Your task to perform on an android device: turn on sleep mode Image 0: 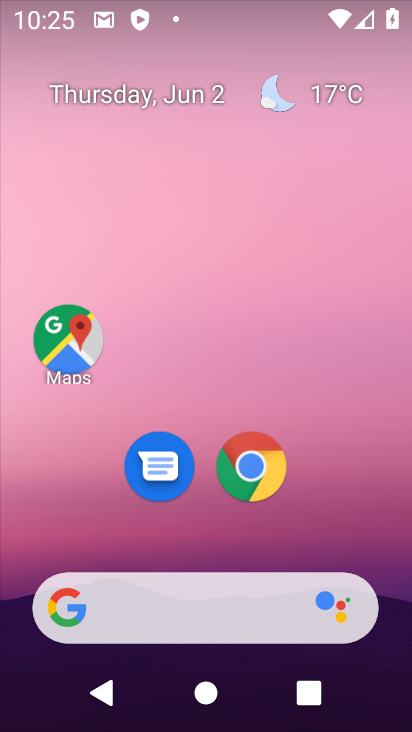
Step 0: press home button
Your task to perform on an android device: turn on sleep mode Image 1: 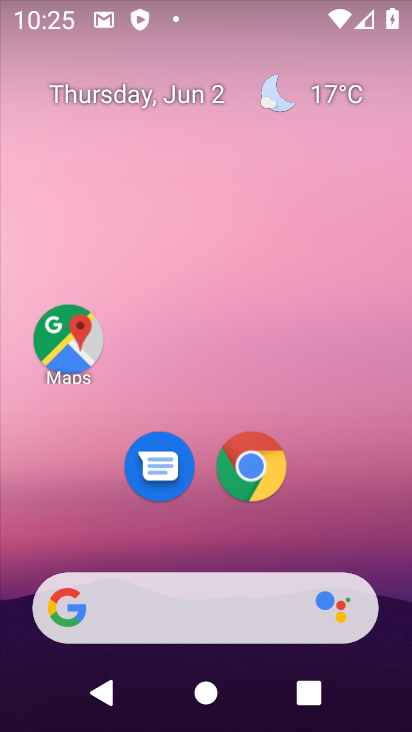
Step 1: drag from (204, 461) to (102, 78)
Your task to perform on an android device: turn on sleep mode Image 2: 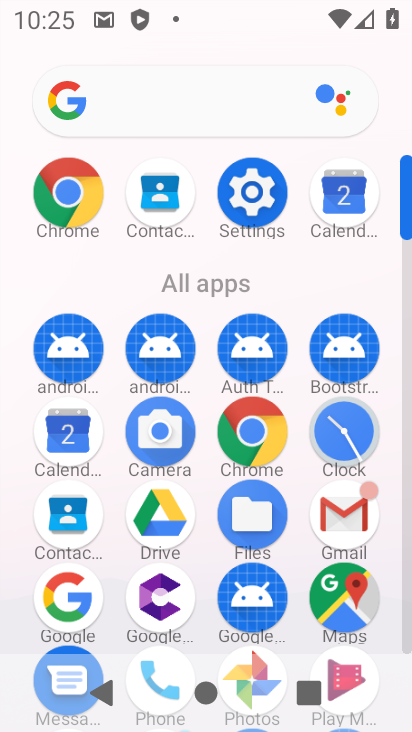
Step 2: click (249, 193)
Your task to perform on an android device: turn on sleep mode Image 3: 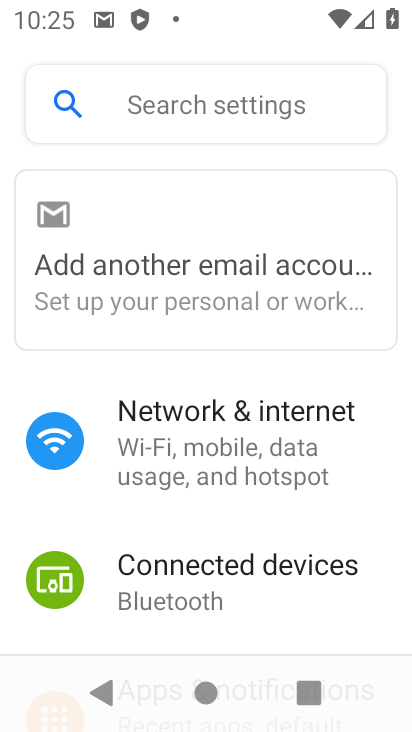
Step 3: drag from (247, 591) to (158, 183)
Your task to perform on an android device: turn on sleep mode Image 4: 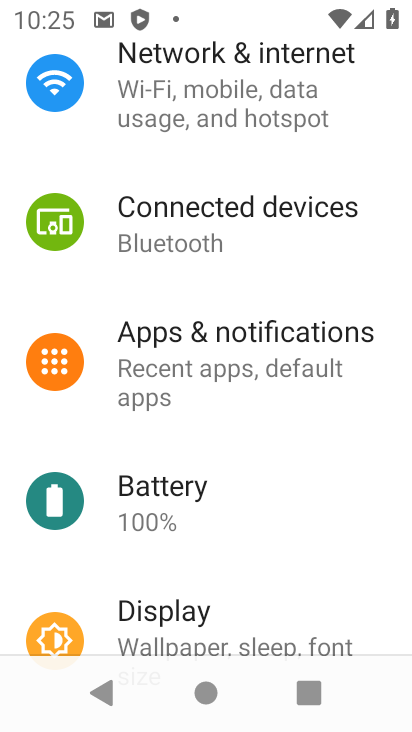
Step 4: click (183, 614)
Your task to perform on an android device: turn on sleep mode Image 5: 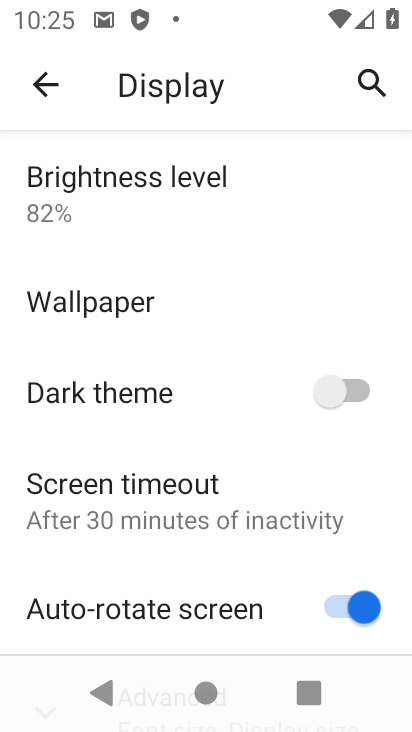
Step 5: task complete